Your task to perform on an android device: Search for Italian restaurants on Maps Image 0: 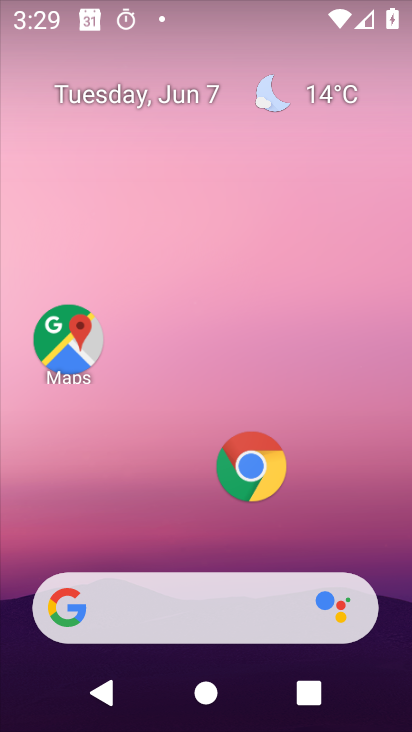
Step 0: click (69, 336)
Your task to perform on an android device: Search for Italian restaurants on Maps Image 1: 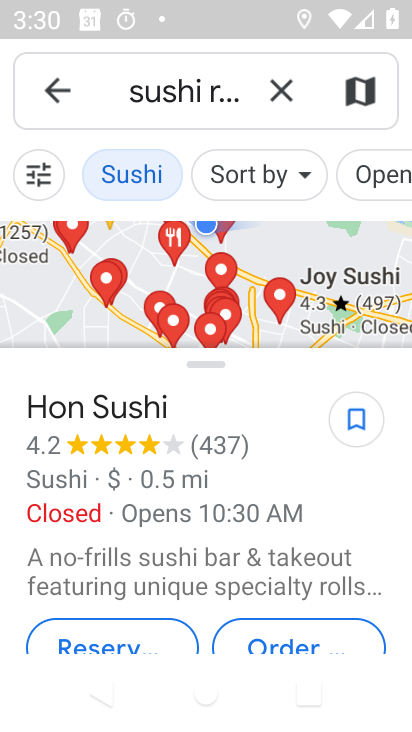
Step 1: click (285, 90)
Your task to perform on an android device: Search for Italian restaurants on Maps Image 2: 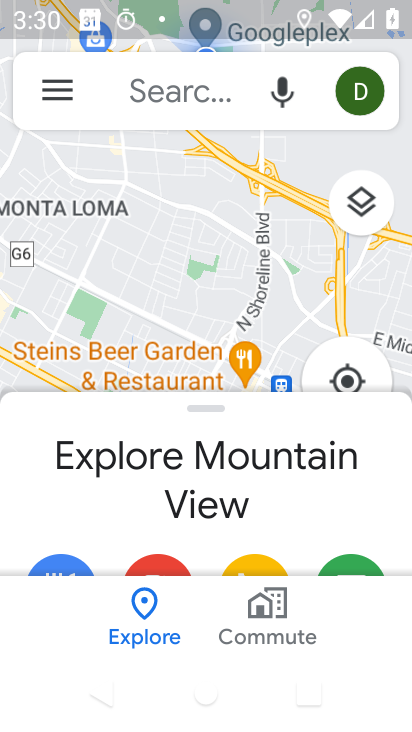
Step 2: click (168, 85)
Your task to perform on an android device: Search for Italian restaurants on Maps Image 3: 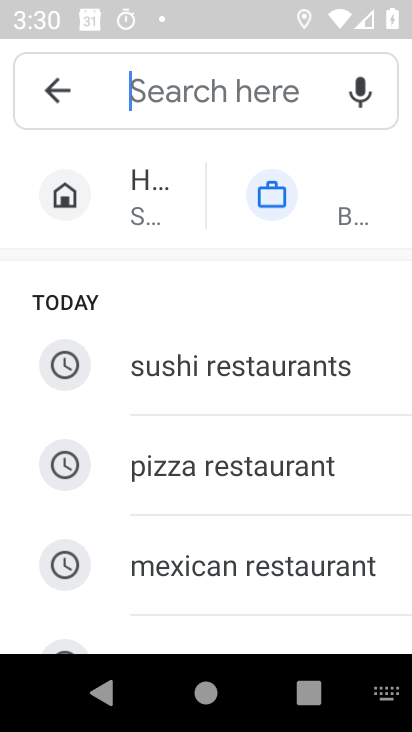
Step 3: drag from (177, 586) to (175, 208)
Your task to perform on an android device: Search for Italian restaurants on Maps Image 4: 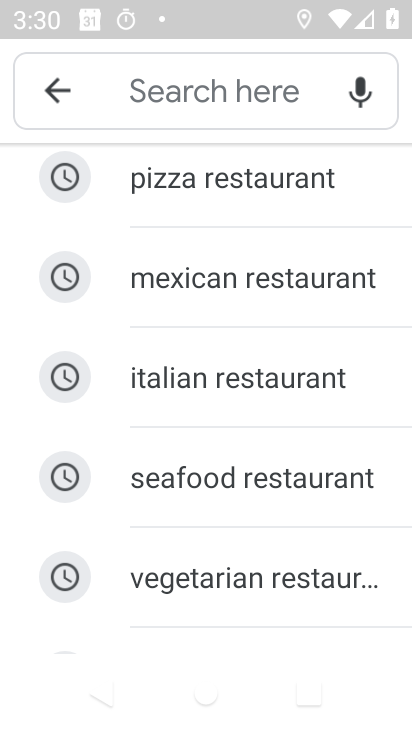
Step 4: click (225, 380)
Your task to perform on an android device: Search for Italian restaurants on Maps Image 5: 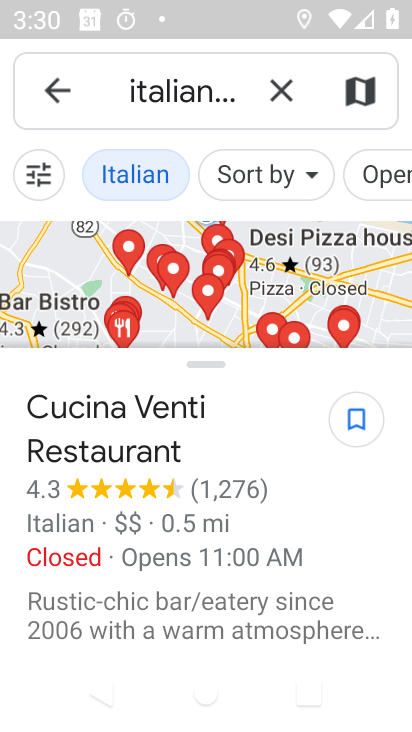
Step 5: task complete